Your task to perform on an android device: delete a single message in the gmail app Image 0: 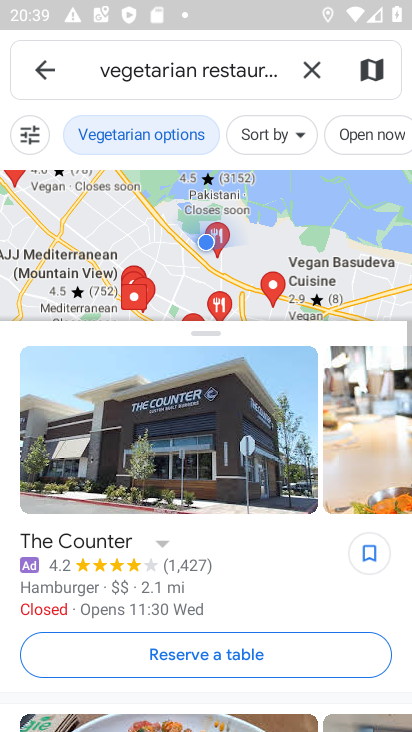
Step 0: press home button
Your task to perform on an android device: delete a single message in the gmail app Image 1: 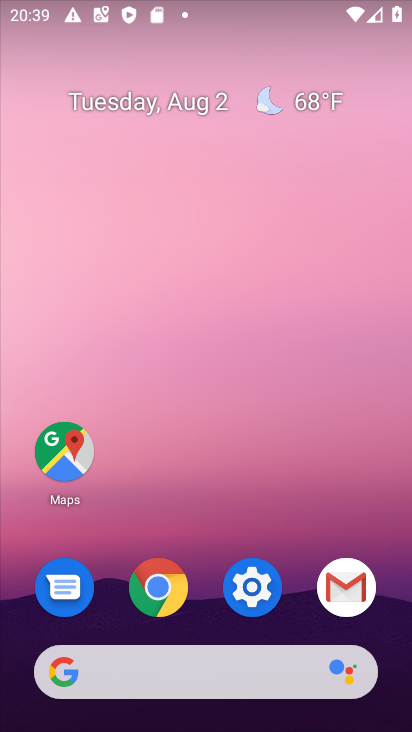
Step 1: click (333, 576)
Your task to perform on an android device: delete a single message in the gmail app Image 2: 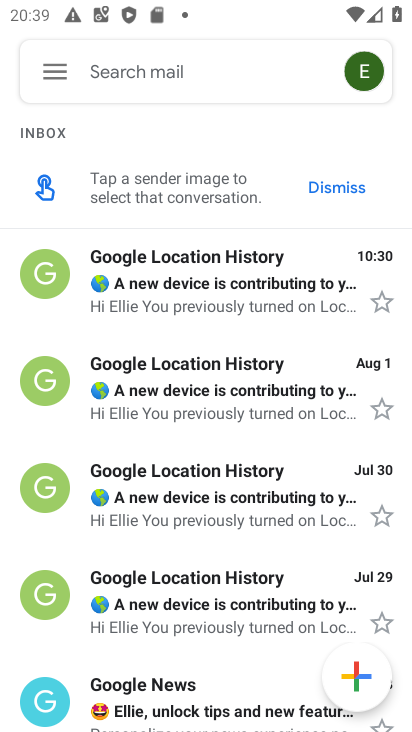
Step 2: click (51, 80)
Your task to perform on an android device: delete a single message in the gmail app Image 3: 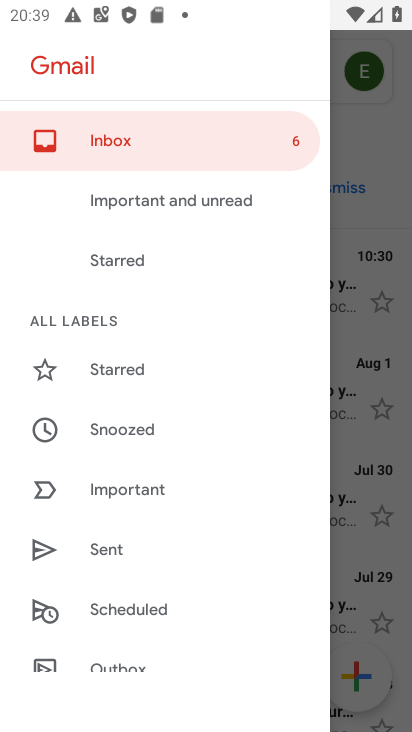
Step 3: drag from (134, 593) to (126, 327)
Your task to perform on an android device: delete a single message in the gmail app Image 4: 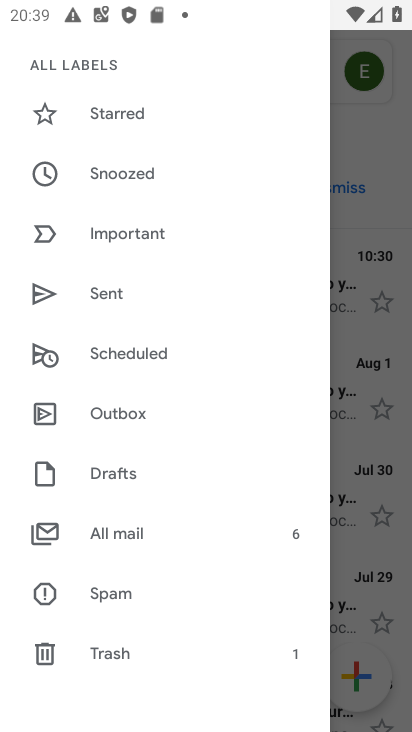
Step 4: click (392, 173)
Your task to perform on an android device: delete a single message in the gmail app Image 5: 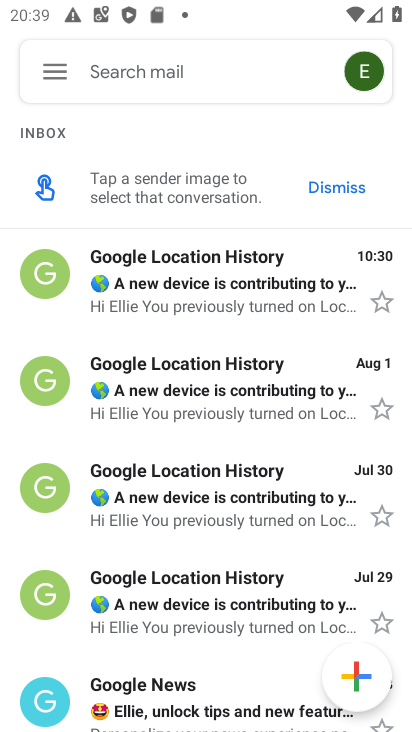
Step 5: click (225, 281)
Your task to perform on an android device: delete a single message in the gmail app Image 6: 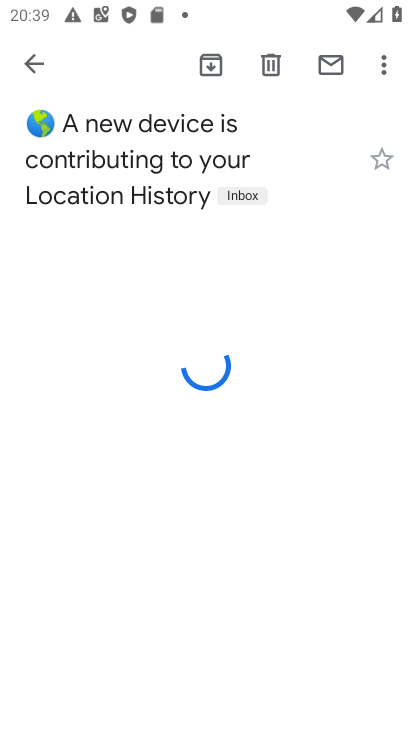
Step 6: click (262, 69)
Your task to perform on an android device: delete a single message in the gmail app Image 7: 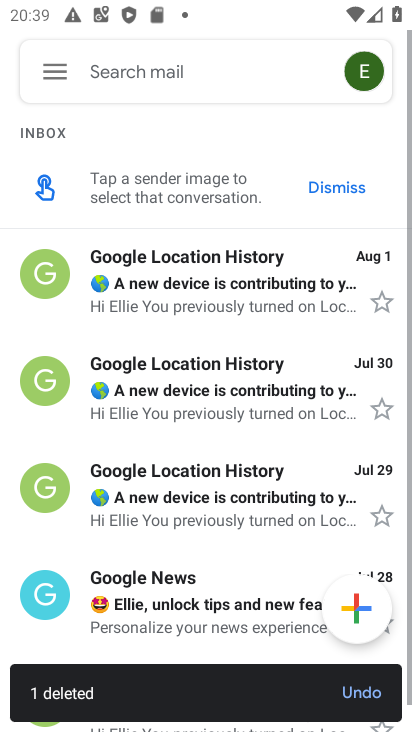
Step 7: task complete